Your task to perform on an android device: Open eBay Image 0: 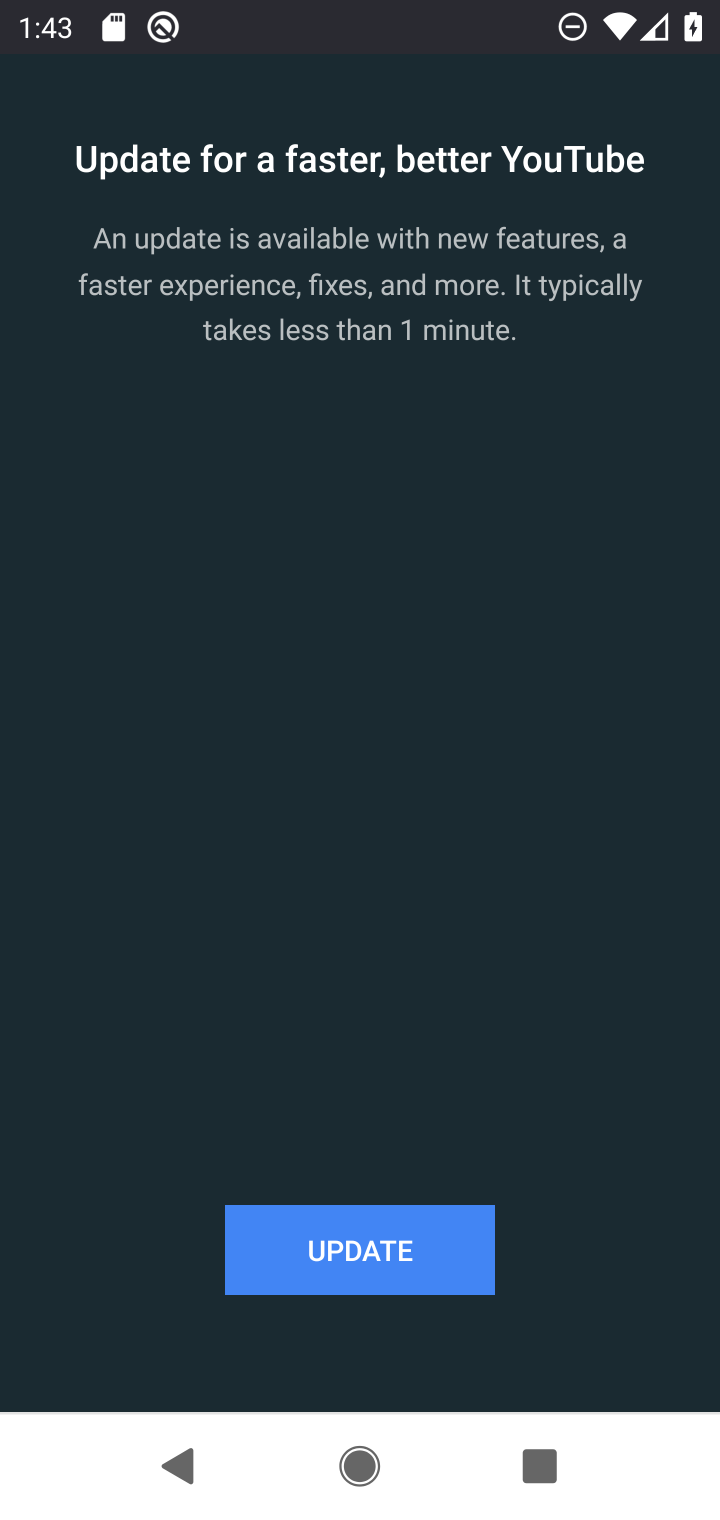
Step 0: press home button
Your task to perform on an android device: Open eBay Image 1: 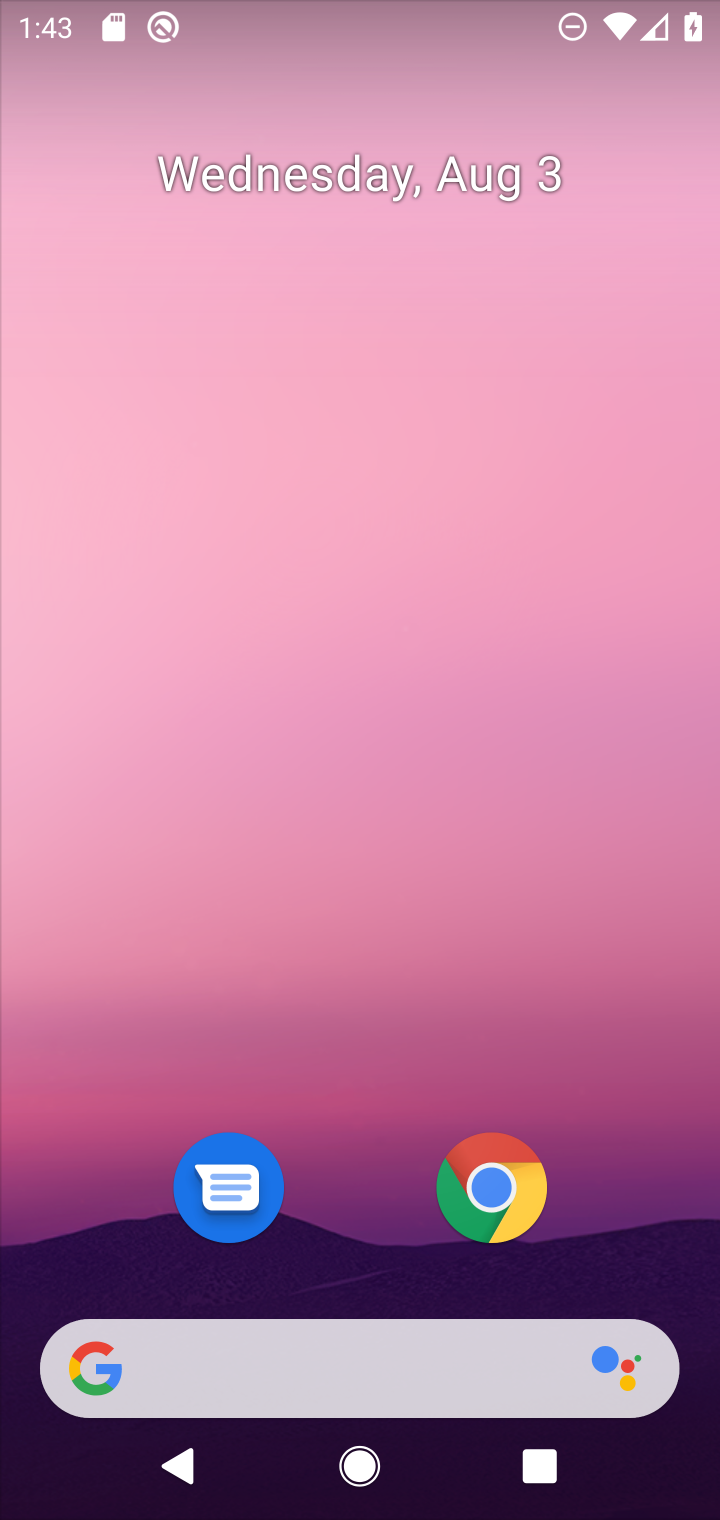
Step 1: click (409, 1355)
Your task to perform on an android device: Open eBay Image 2: 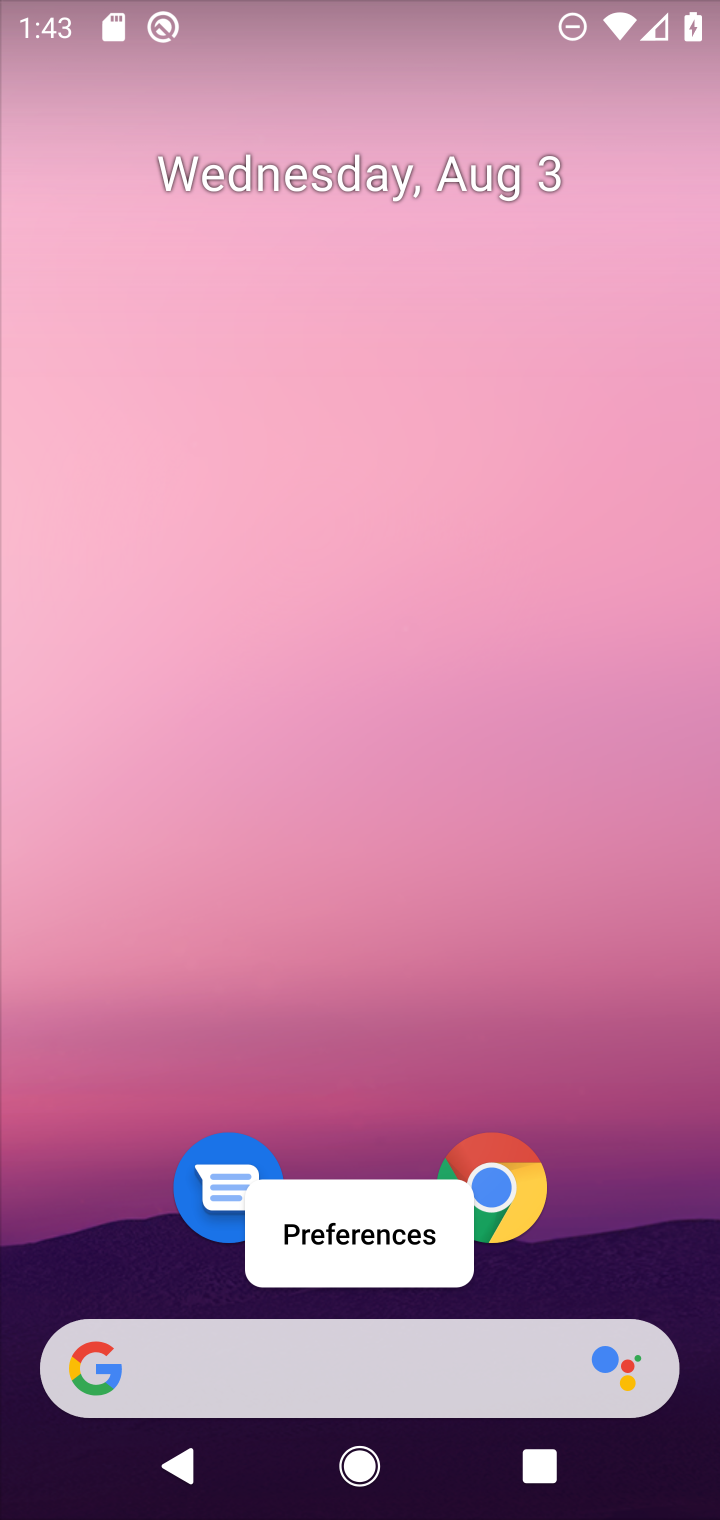
Step 2: click (399, 1390)
Your task to perform on an android device: Open eBay Image 3: 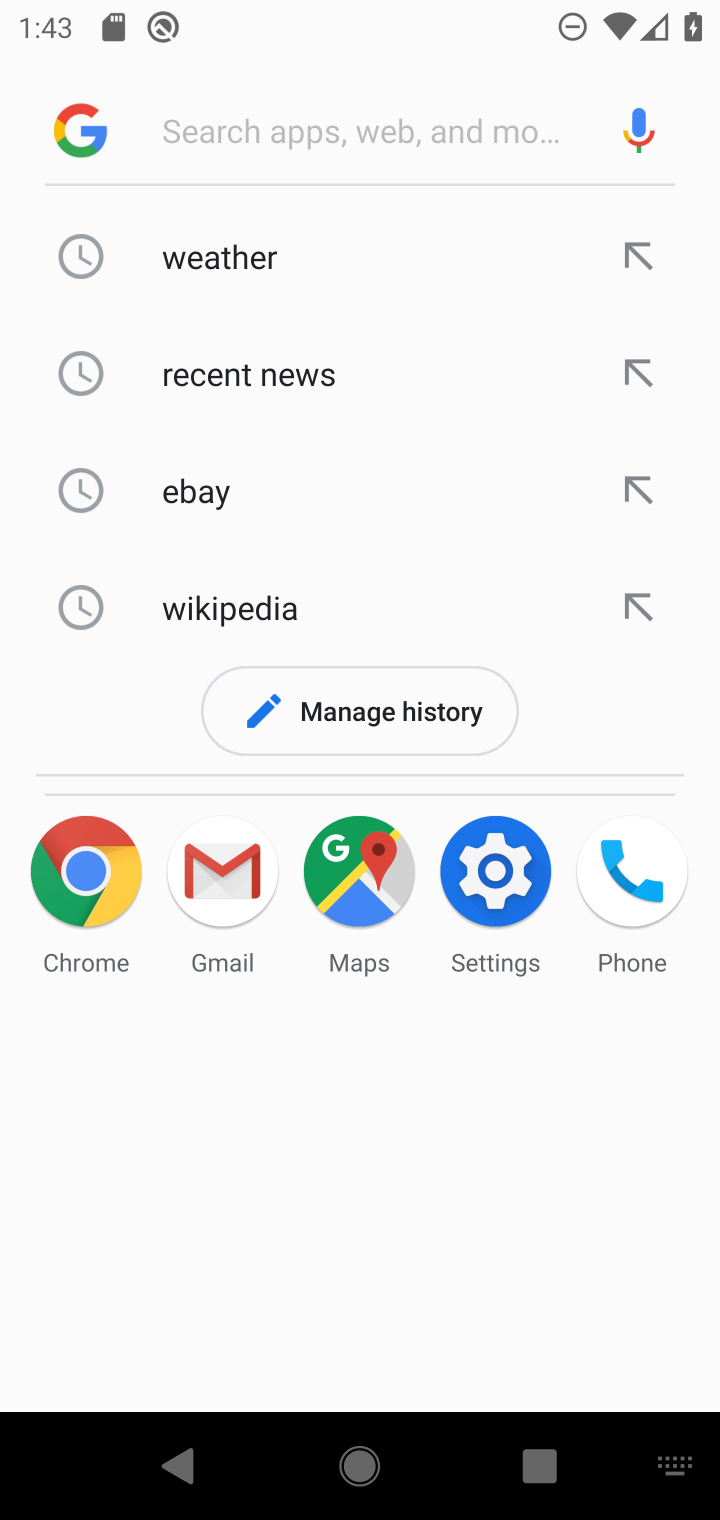
Step 3: click (197, 487)
Your task to perform on an android device: Open eBay Image 4: 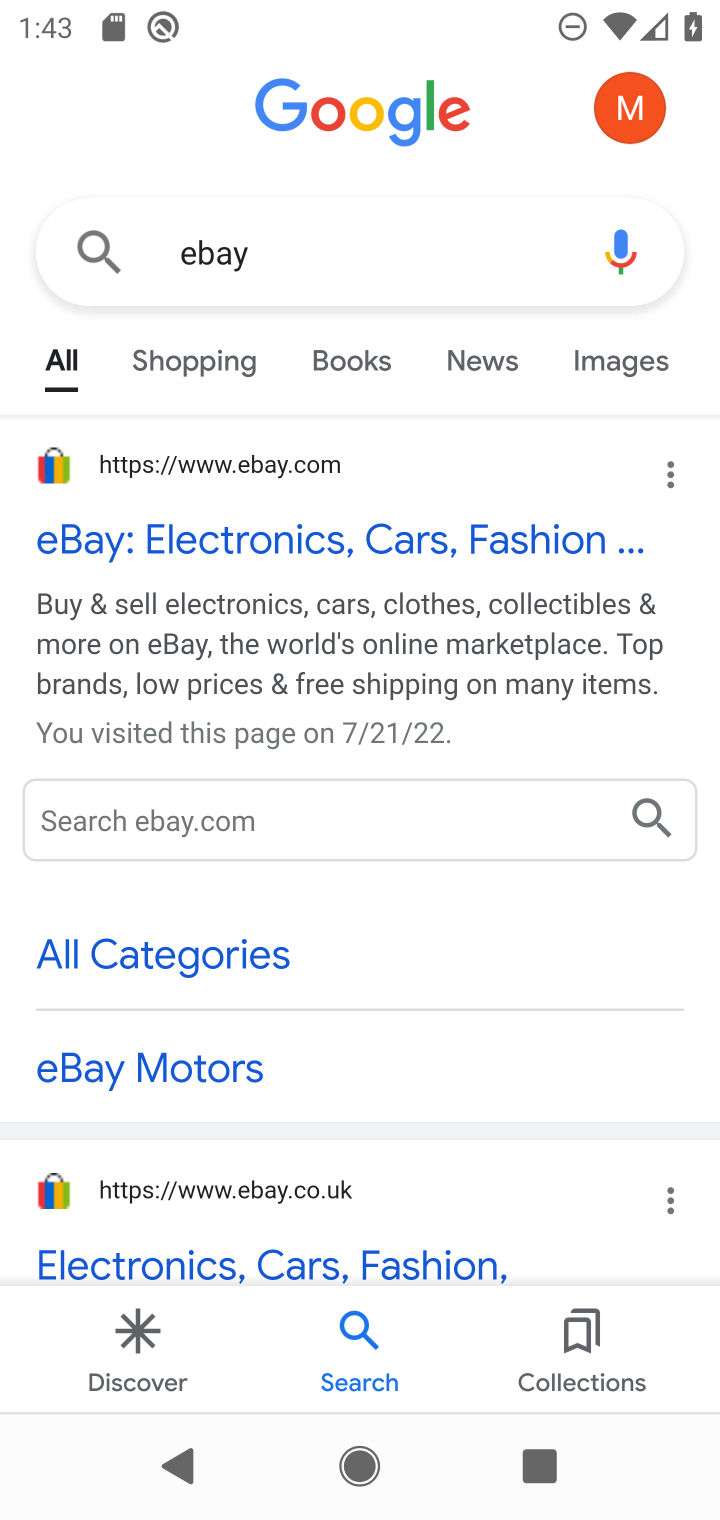
Step 4: click (205, 545)
Your task to perform on an android device: Open eBay Image 5: 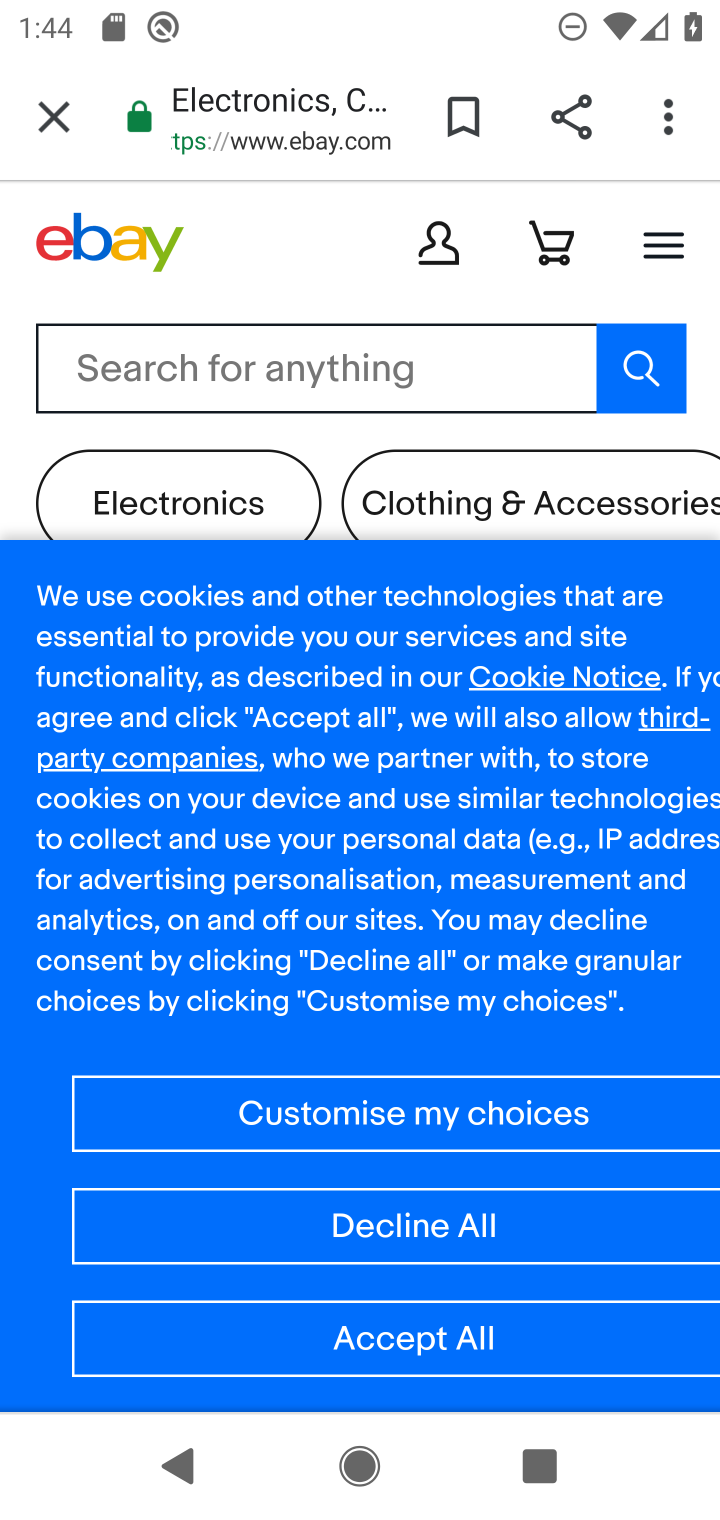
Step 5: click (505, 1343)
Your task to perform on an android device: Open eBay Image 6: 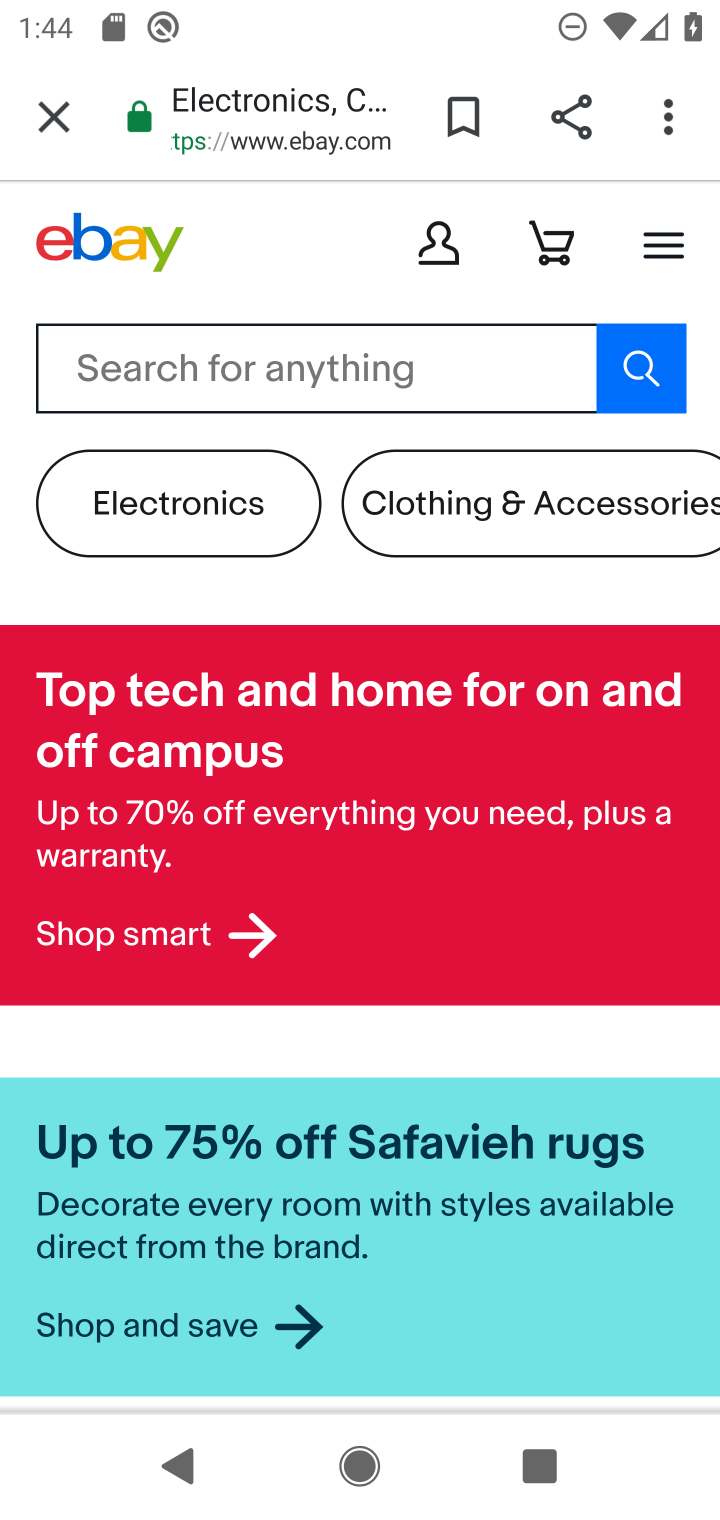
Step 6: task complete